Your task to perform on an android device: turn on improve location accuracy Image 0: 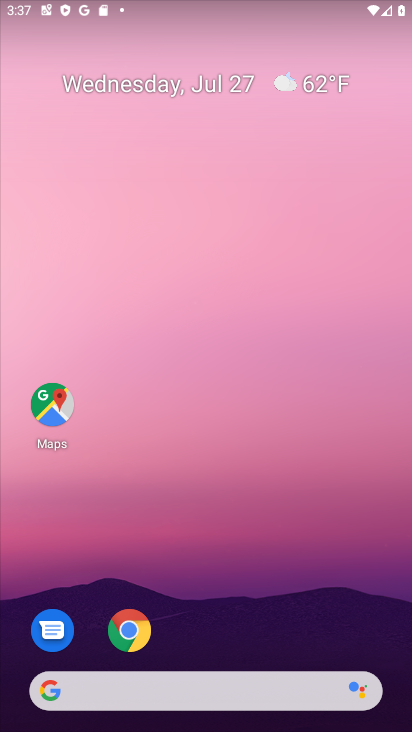
Step 0: drag from (208, 292) to (174, 7)
Your task to perform on an android device: turn on improve location accuracy Image 1: 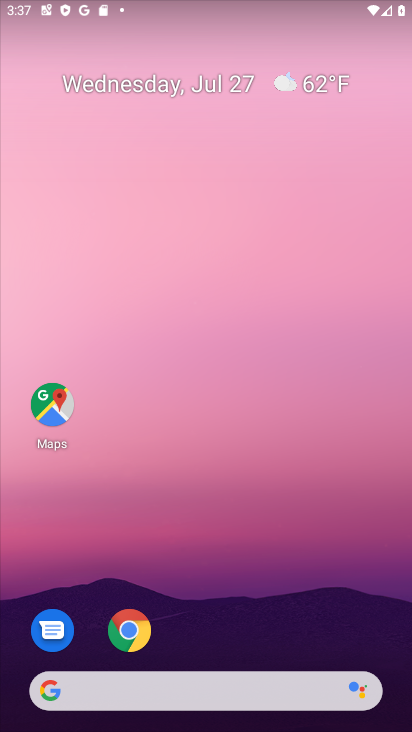
Step 1: drag from (209, 632) to (207, 140)
Your task to perform on an android device: turn on improve location accuracy Image 2: 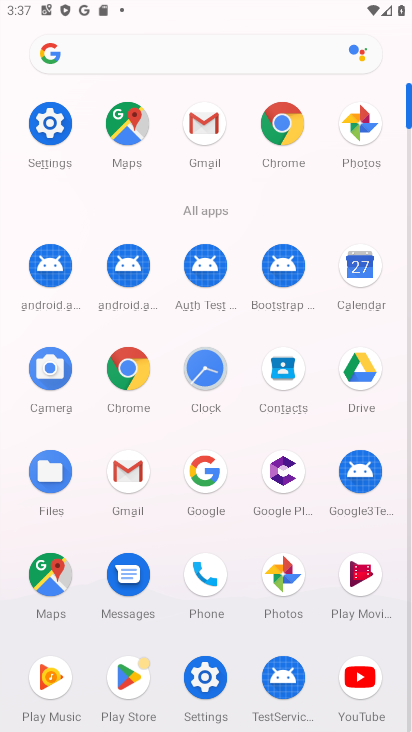
Step 2: click (206, 670)
Your task to perform on an android device: turn on improve location accuracy Image 3: 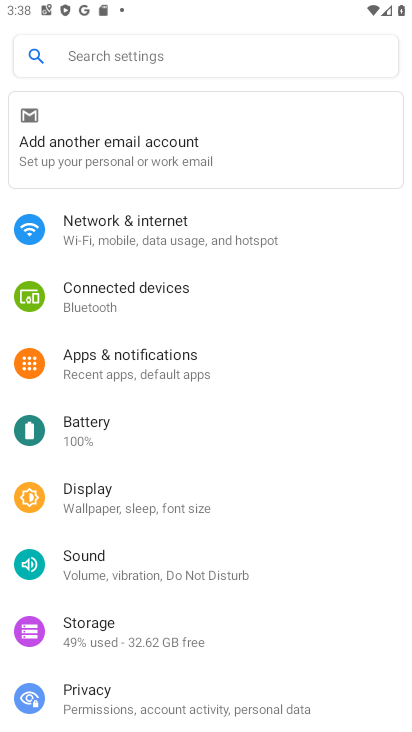
Step 3: drag from (191, 658) to (147, 199)
Your task to perform on an android device: turn on improve location accuracy Image 4: 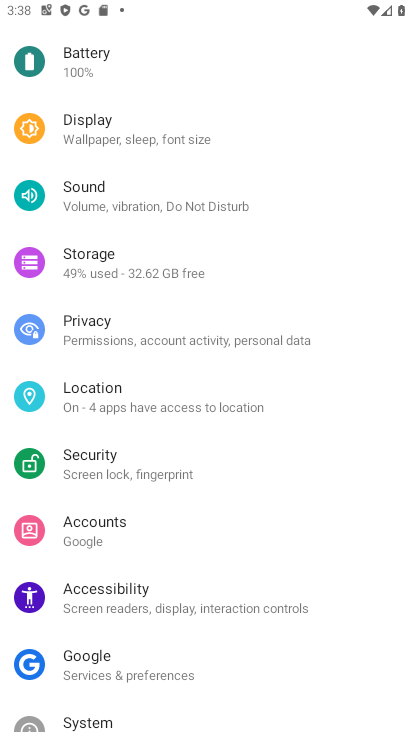
Step 4: click (124, 392)
Your task to perform on an android device: turn on improve location accuracy Image 5: 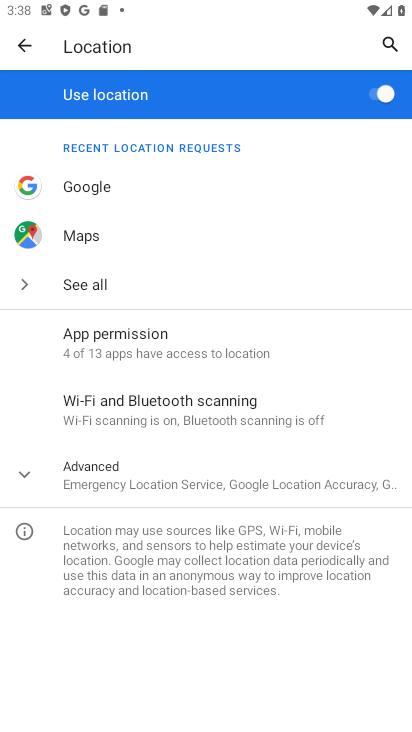
Step 5: click (19, 472)
Your task to perform on an android device: turn on improve location accuracy Image 6: 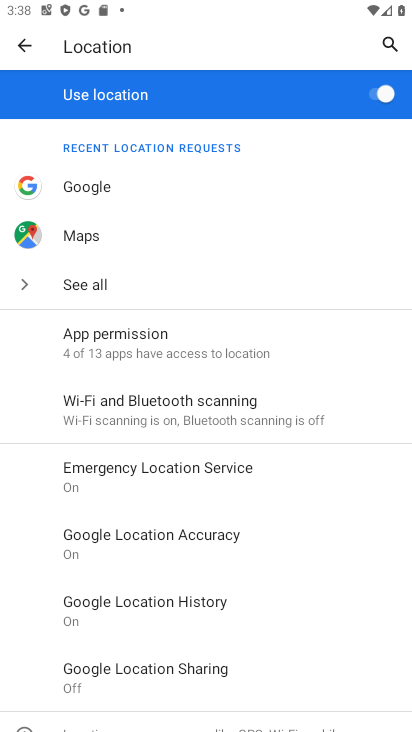
Step 6: task complete